Your task to perform on an android device: turn on wifi Image 0: 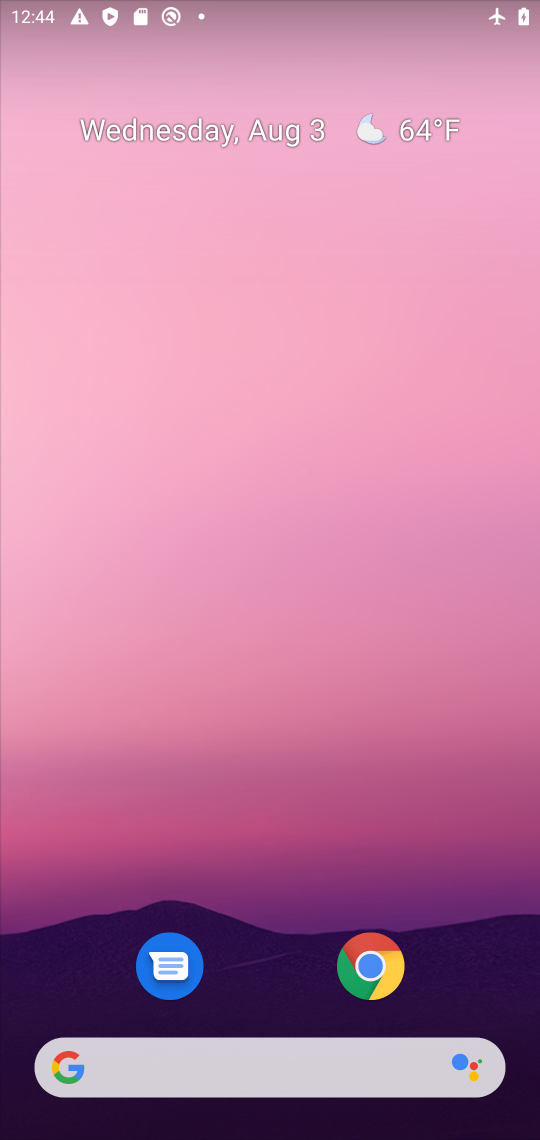
Step 0: drag from (284, 653) to (284, 353)
Your task to perform on an android device: turn on wifi Image 1: 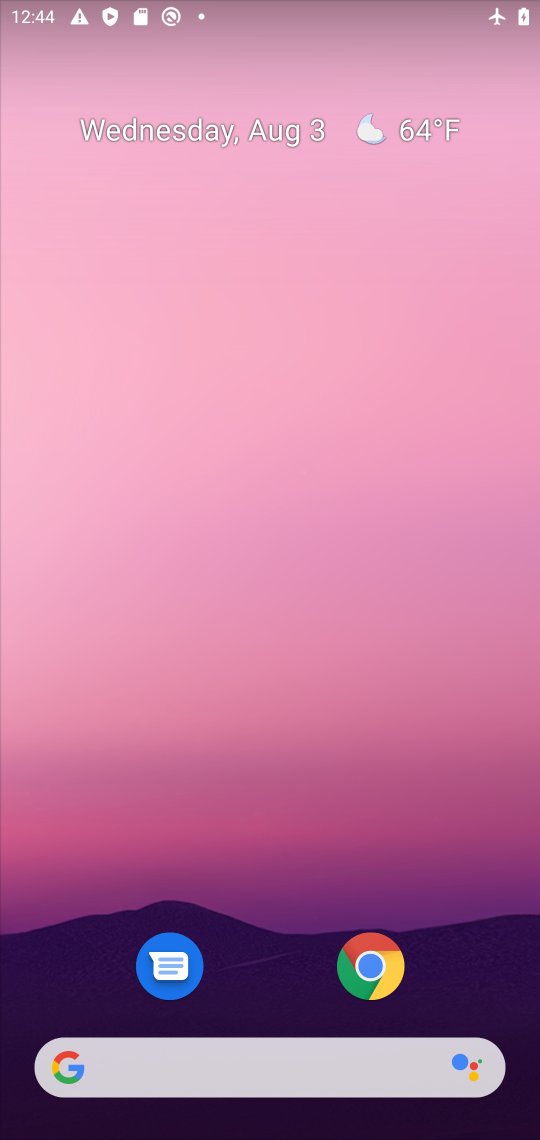
Step 1: drag from (265, 984) to (231, 111)
Your task to perform on an android device: turn on wifi Image 2: 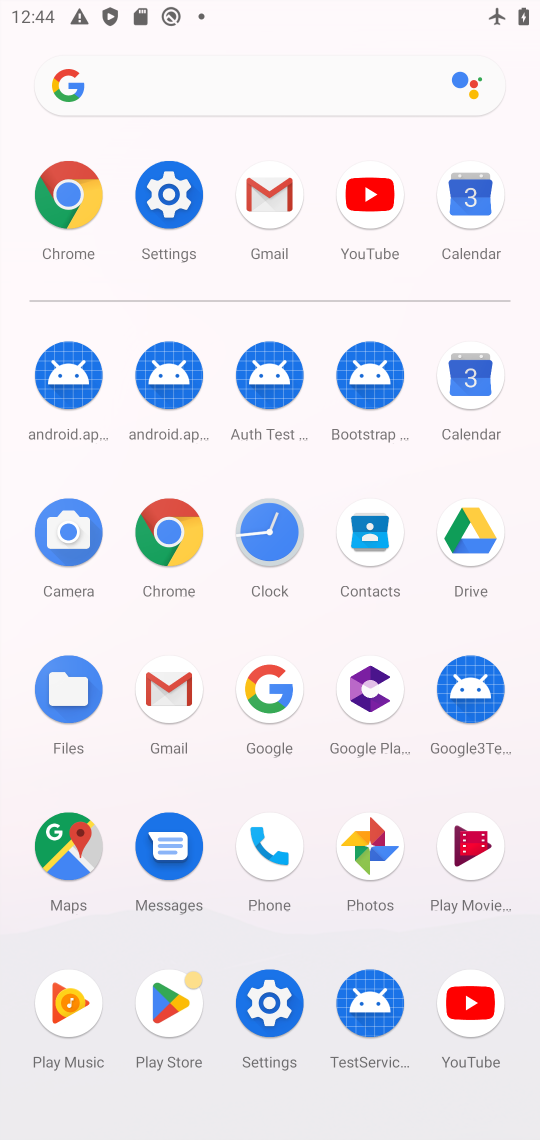
Step 2: click (161, 247)
Your task to perform on an android device: turn on wifi Image 3: 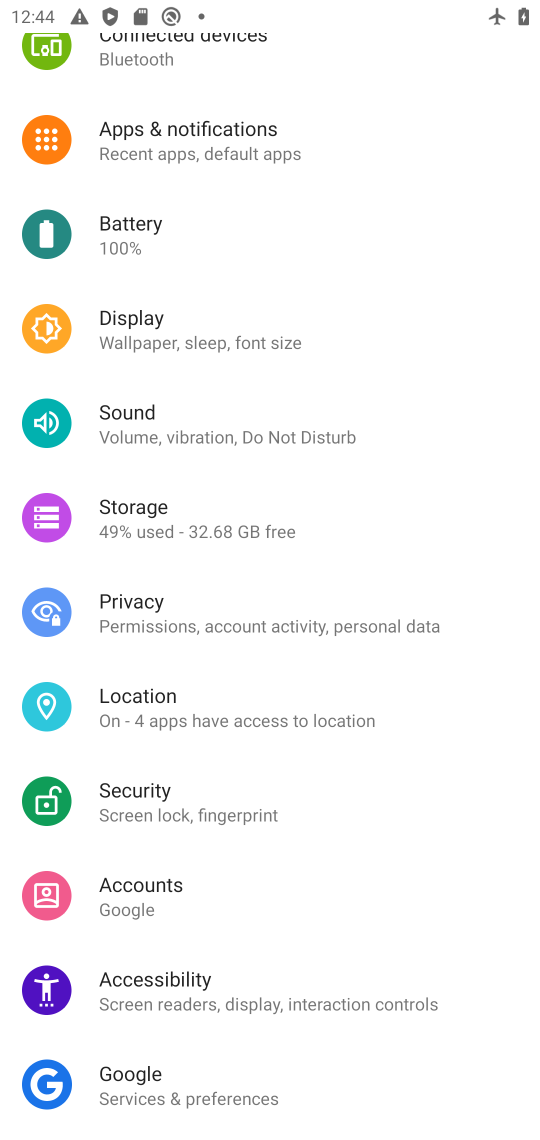
Step 3: drag from (214, 275) to (264, 826)
Your task to perform on an android device: turn on wifi Image 4: 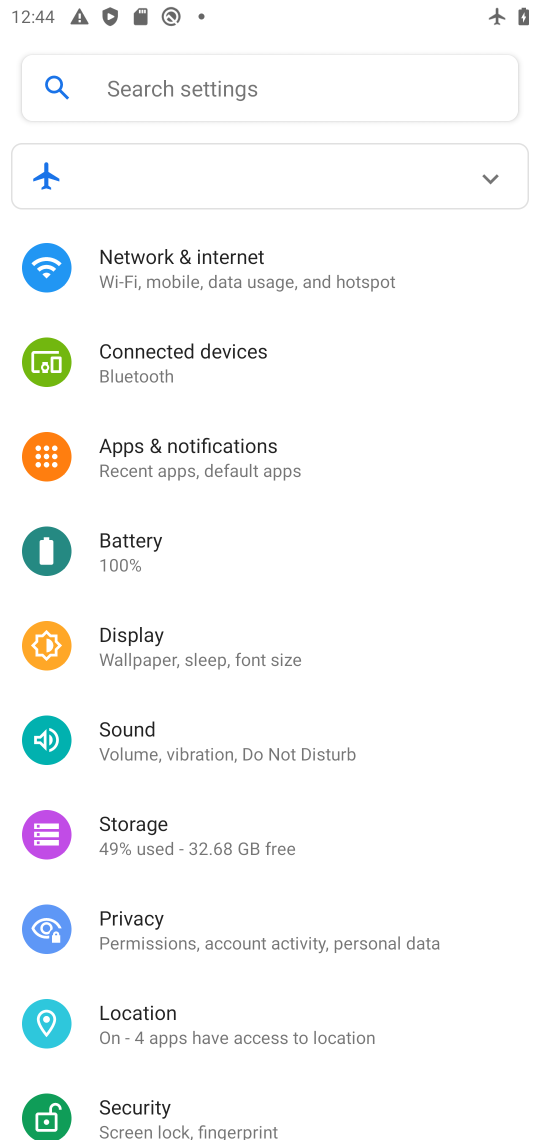
Step 4: click (189, 267)
Your task to perform on an android device: turn on wifi Image 5: 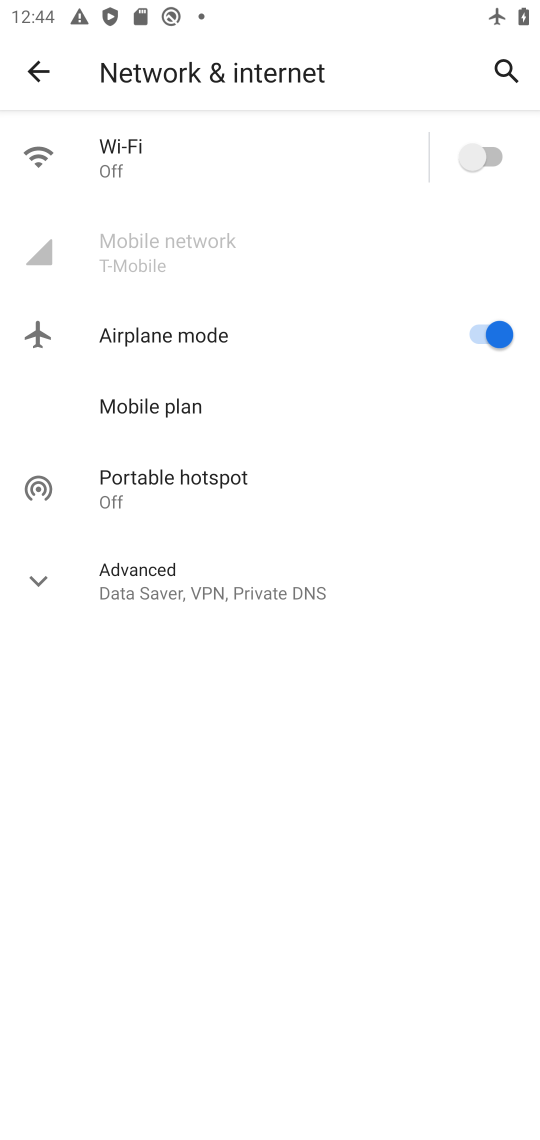
Step 5: click (488, 146)
Your task to perform on an android device: turn on wifi Image 6: 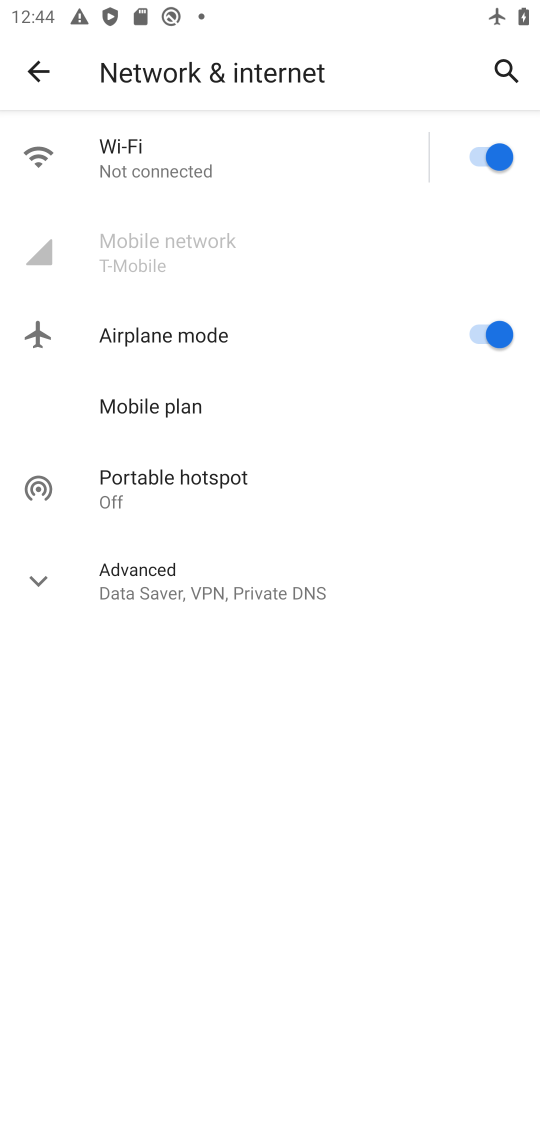
Step 6: task complete